Your task to perform on an android device: Open settings Image 0: 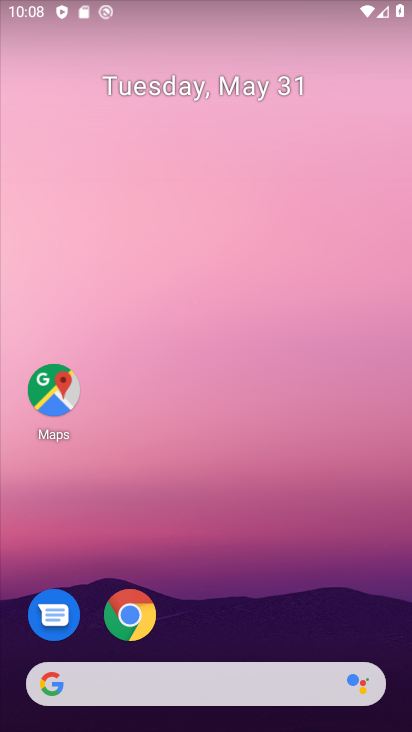
Step 0: drag from (245, 630) to (245, 98)
Your task to perform on an android device: Open settings Image 1: 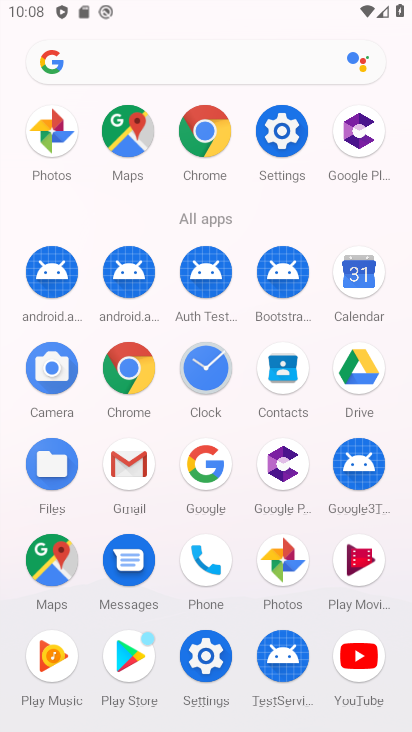
Step 1: click (285, 118)
Your task to perform on an android device: Open settings Image 2: 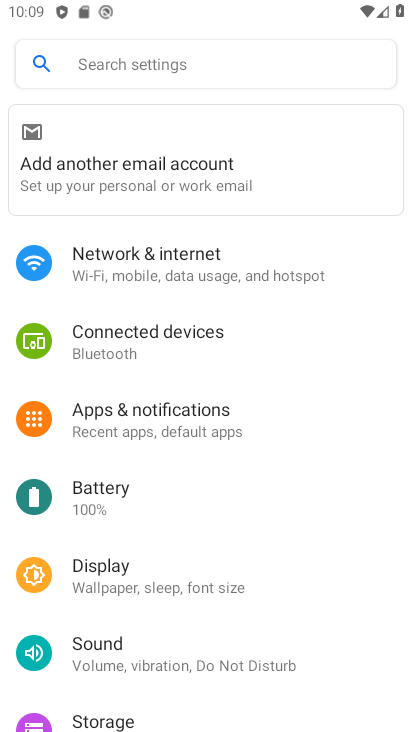
Step 2: task complete